Your task to perform on an android device: see creations saved in the google photos Image 0: 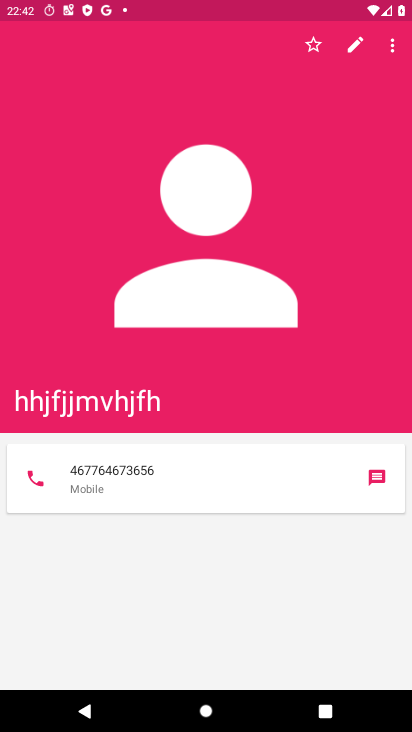
Step 0: press home button
Your task to perform on an android device: see creations saved in the google photos Image 1: 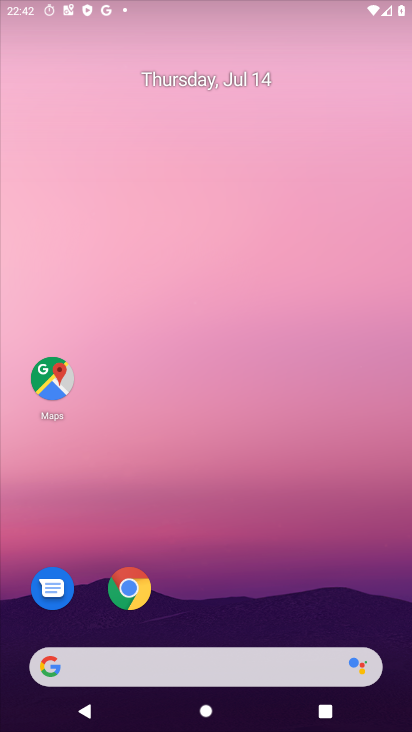
Step 1: drag from (229, 575) to (249, 65)
Your task to perform on an android device: see creations saved in the google photos Image 2: 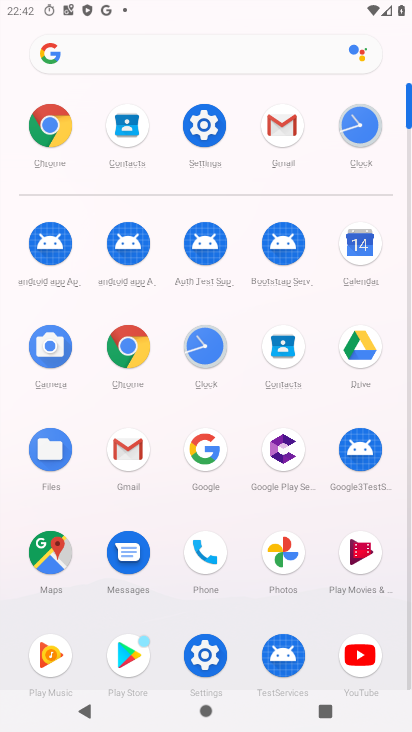
Step 2: click (284, 553)
Your task to perform on an android device: see creations saved in the google photos Image 3: 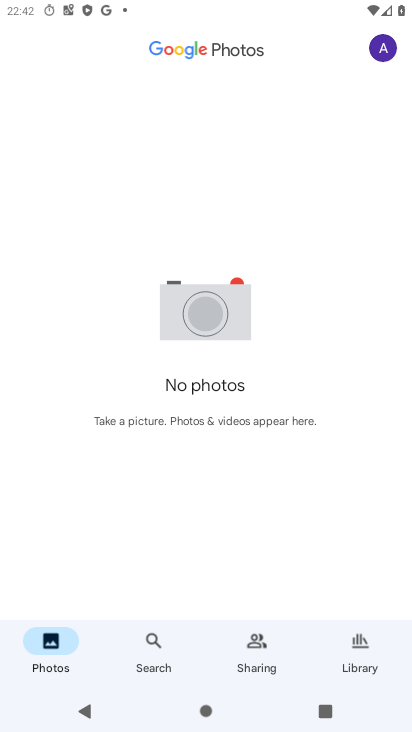
Step 3: click (147, 655)
Your task to perform on an android device: see creations saved in the google photos Image 4: 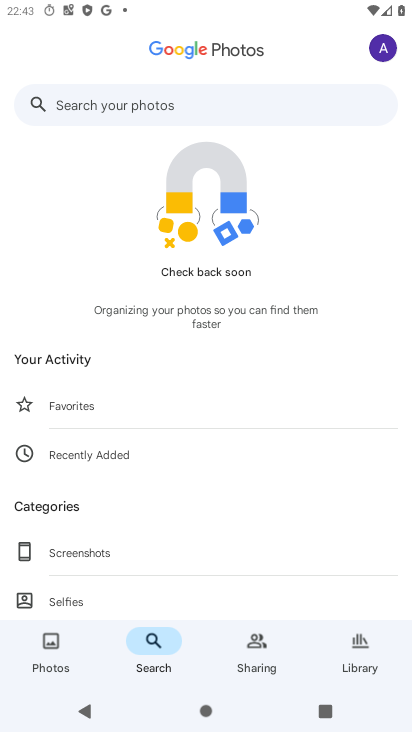
Step 4: click (155, 103)
Your task to perform on an android device: see creations saved in the google photos Image 5: 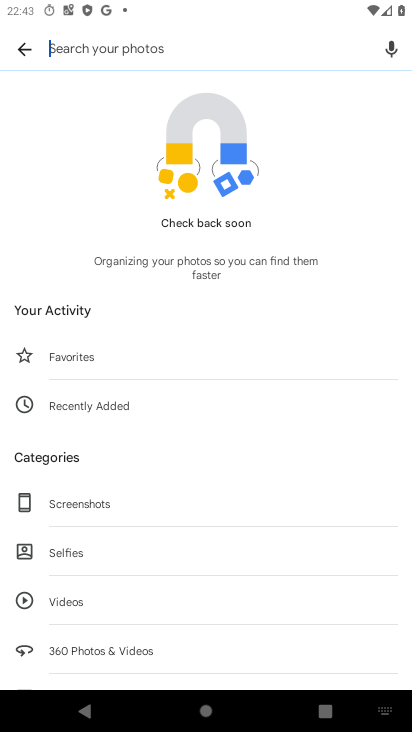
Step 5: drag from (135, 548) to (163, 194)
Your task to perform on an android device: see creations saved in the google photos Image 6: 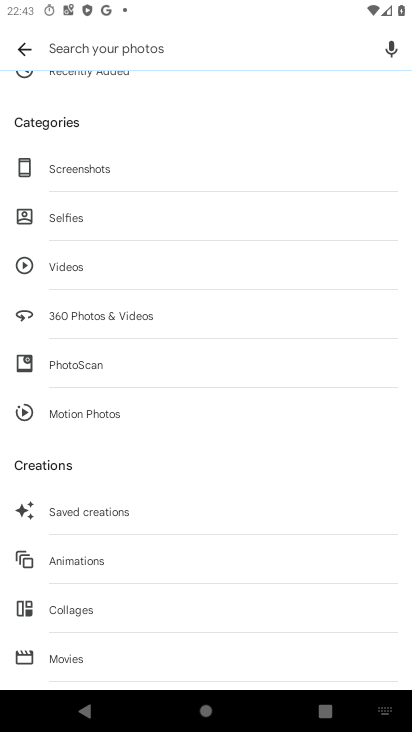
Step 6: click (85, 514)
Your task to perform on an android device: see creations saved in the google photos Image 7: 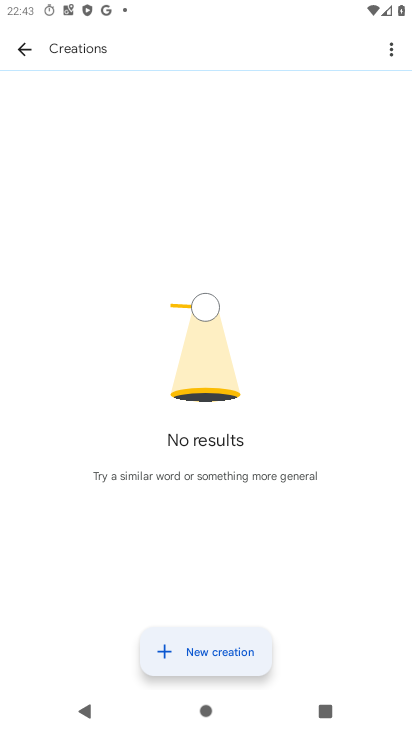
Step 7: task complete